Your task to perform on an android device: all mails in gmail Image 0: 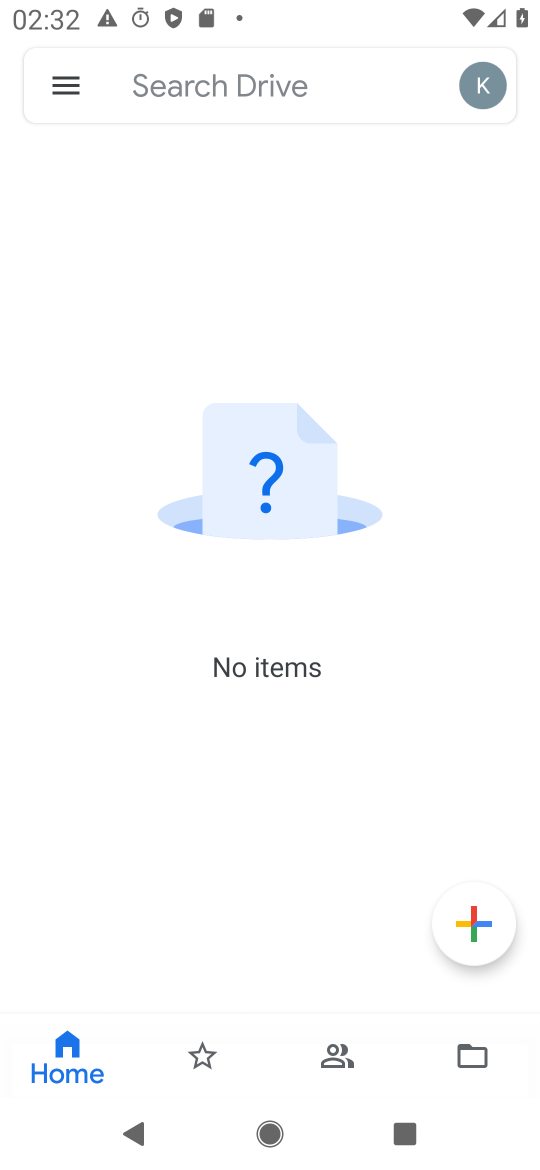
Step 0: press home button
Your task to perform on an android device: all mails in gmail Image 1: 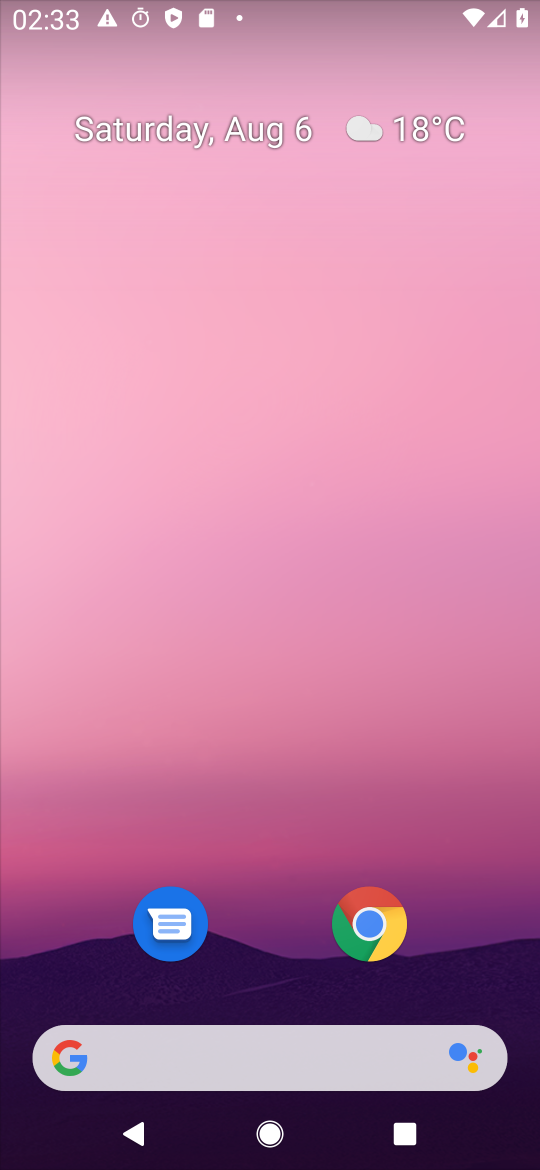
Step 1: drag from (247, 1054) to (353, 31)
Your task to perform on an android device: all mails in gmail Image 2: 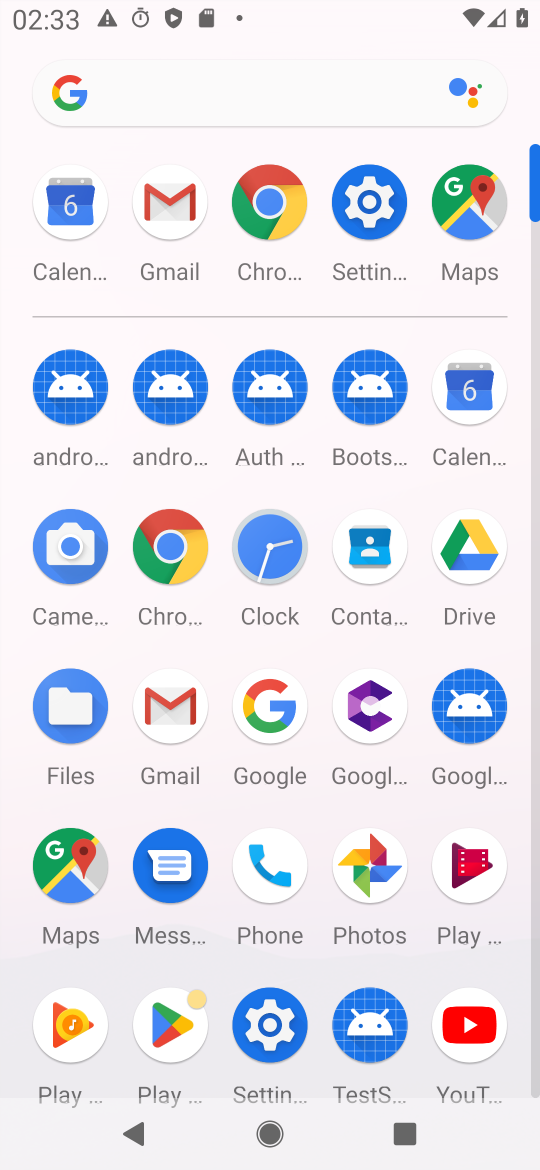
Step 2: click (168, 739)
Your task to perform on an android device: all mails in gmail Image 3: 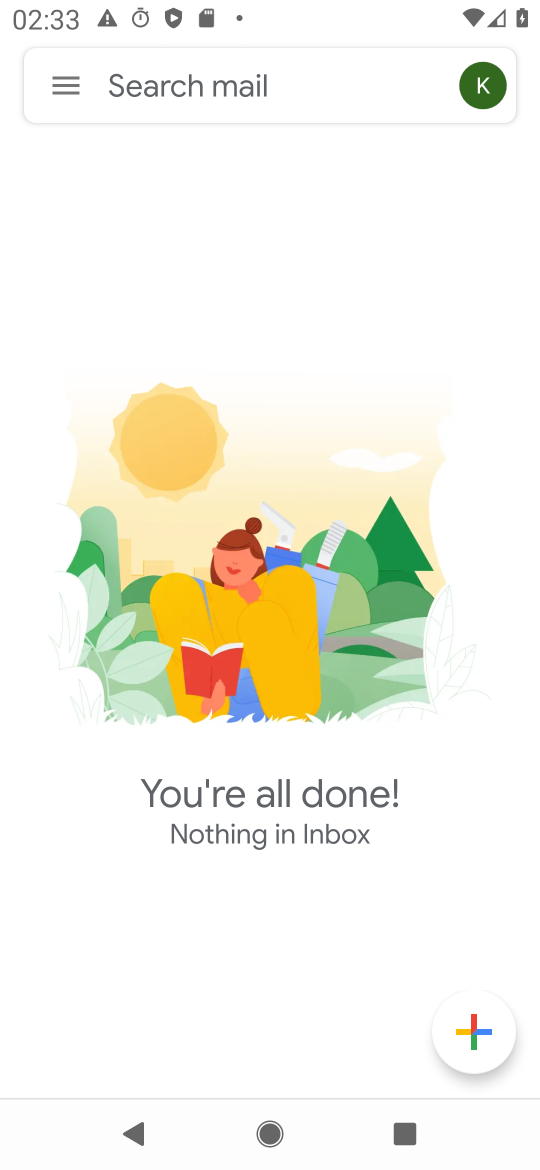
Step 3: click (81, 87)
Your task to perform on an android device: all mails in gmail Image 4: 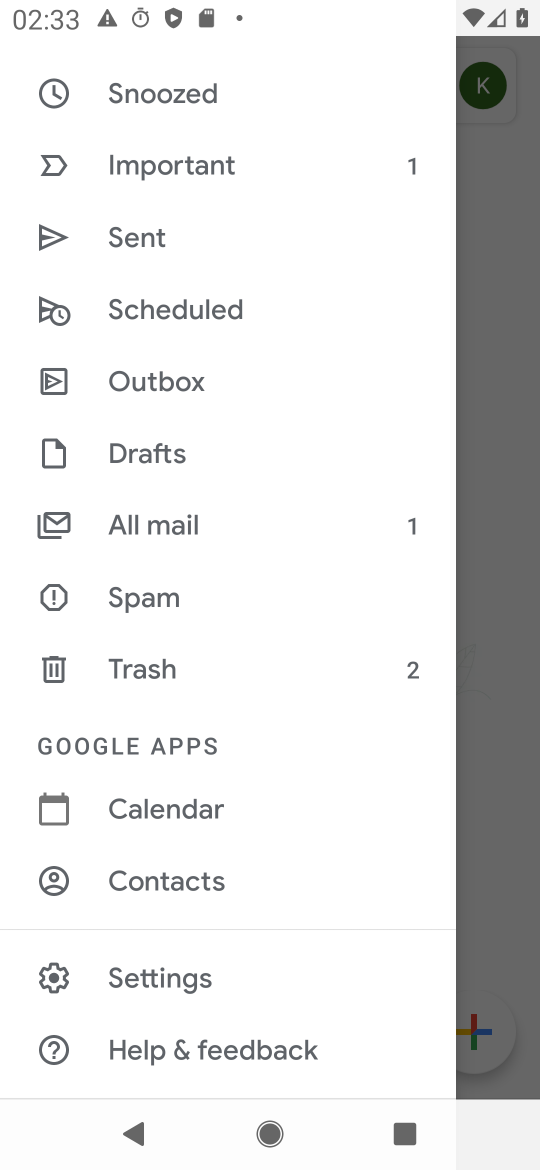
Step 4: click (181, 525)
Your task to perform on an android device: all mails in gmail Image 5: 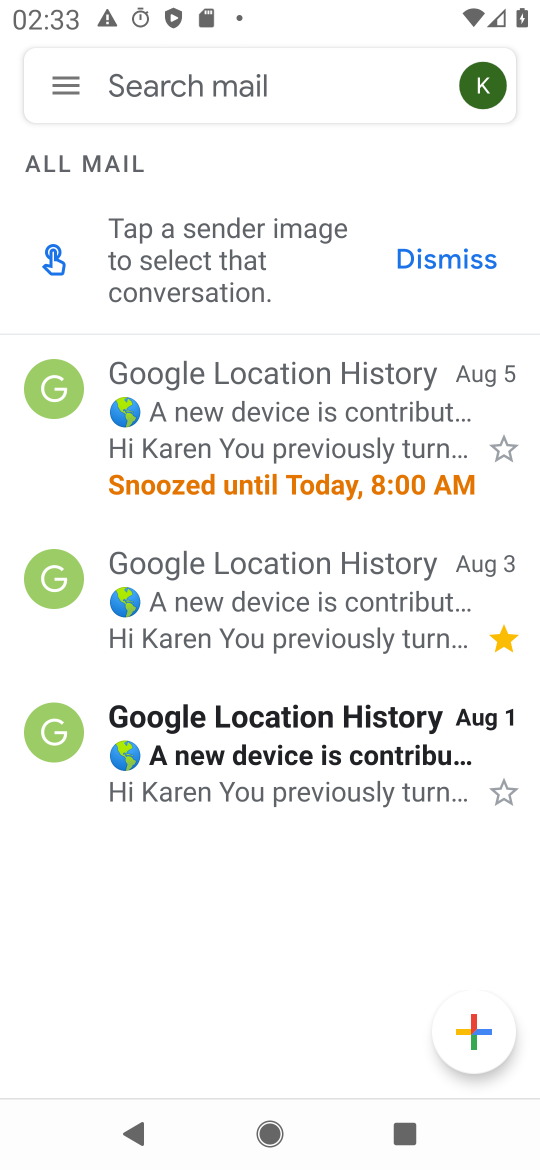
Step 5: task complete